Your task to perform on an android device: change text size in settings app Image 0: 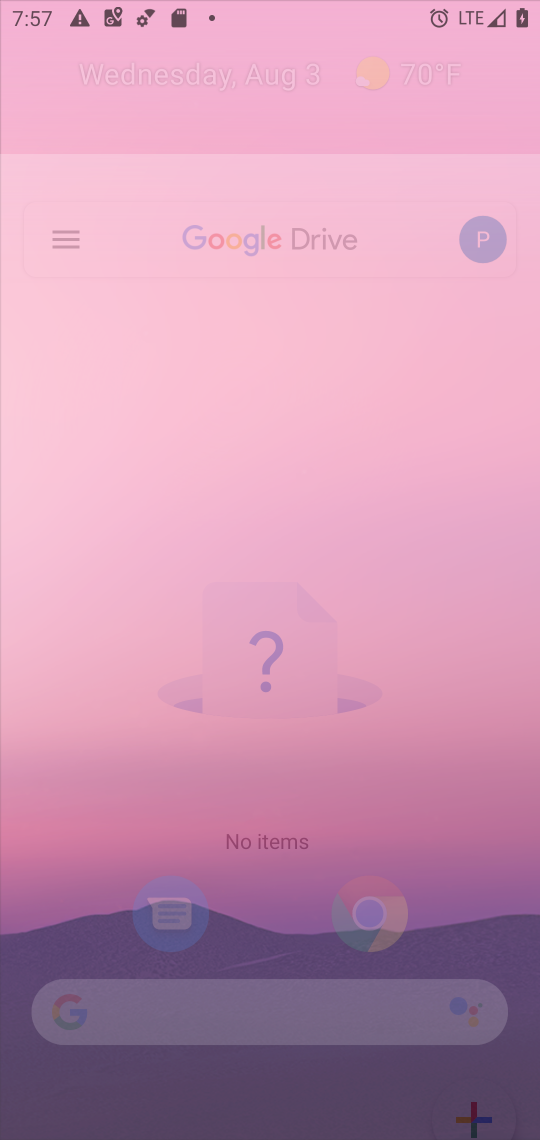
Step 0: press home button
Your task to perform on an android device: change text size in settings app Image 1: 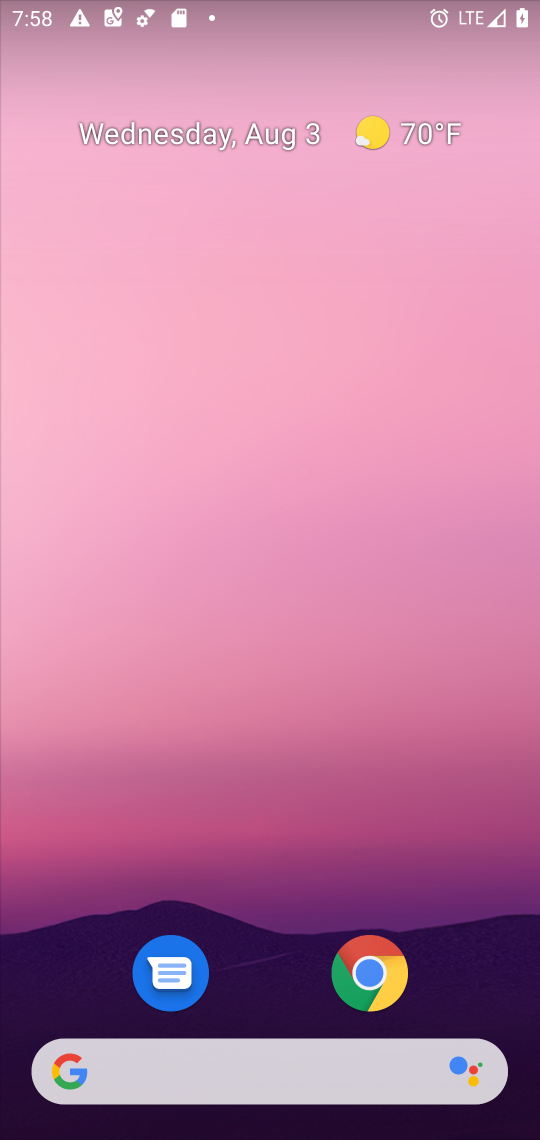
Step 1: drag from (278, 998) to (269, 107)
Your task to perform on an android device: change text size in settings app Image 2: 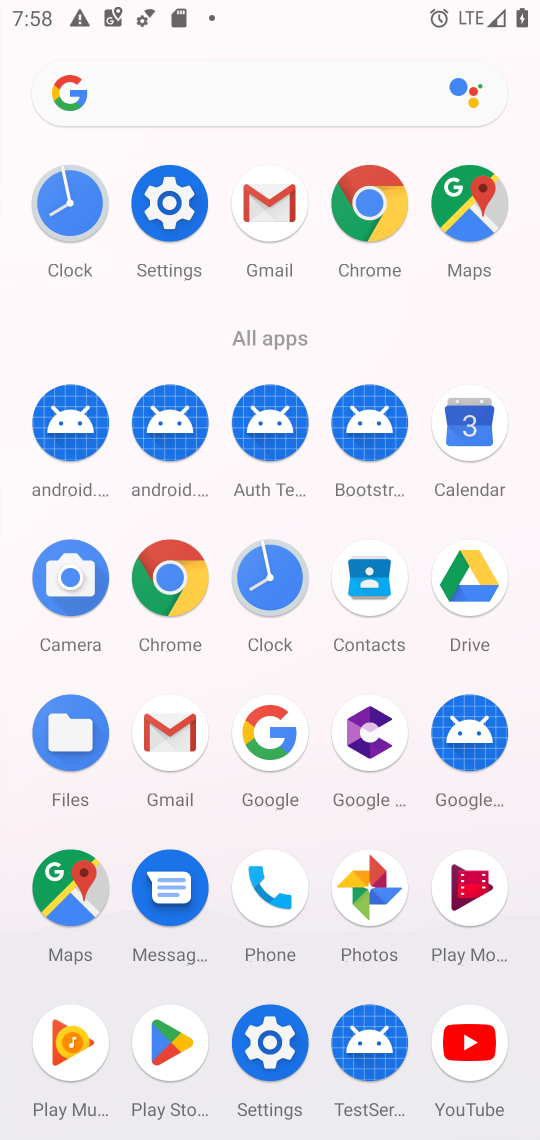
Step 2: click (269, 1035)
Your task to perform on an android device: change text size in settings app Image 3: 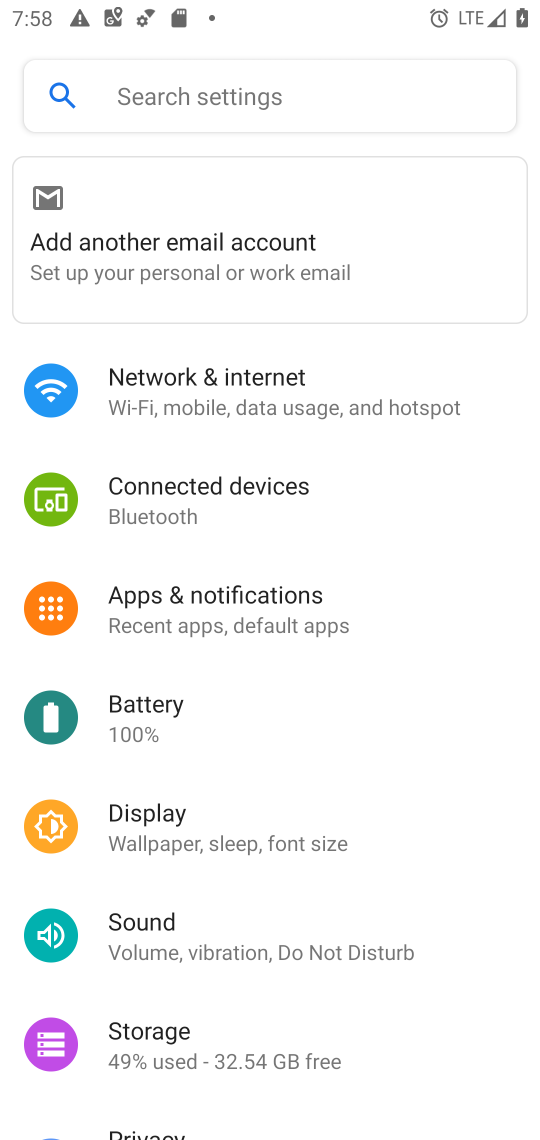
Step 3: click (197, 820)
Your task to perform on an android device: change text size in settings app Image 4: 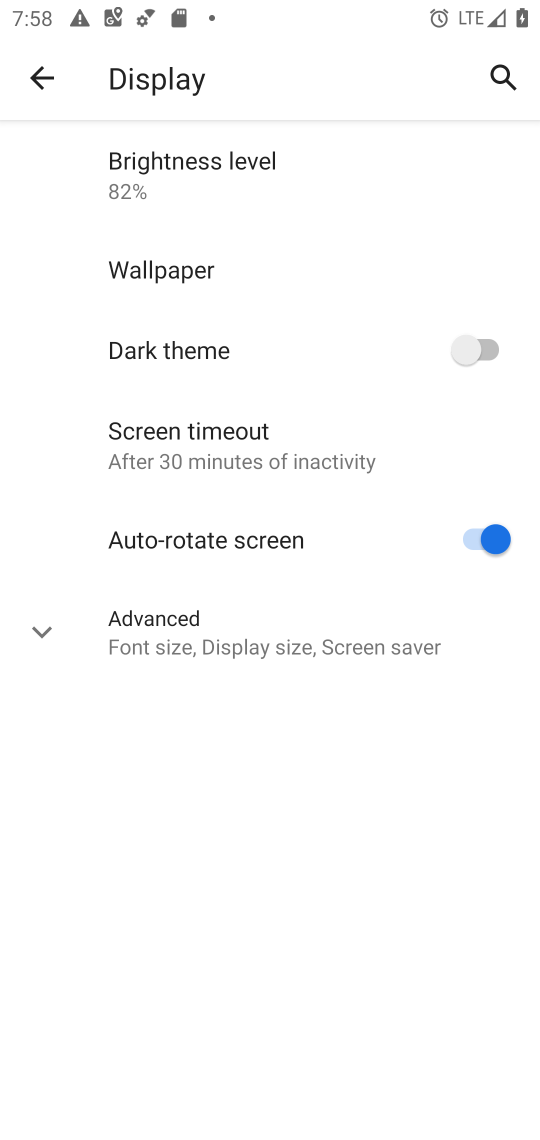
Step 4: click (51, 623)
Your task to perform on an android device: change text size in settings app Image 5: 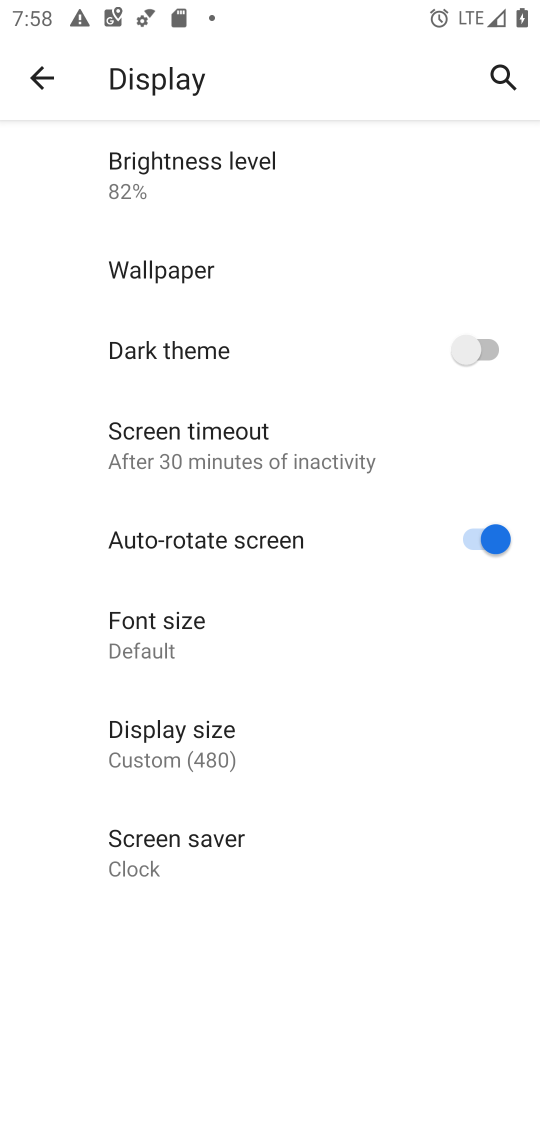
Step 5: click (188, 647)
Your task to perform on an android device: change text size in settings app Image 6: 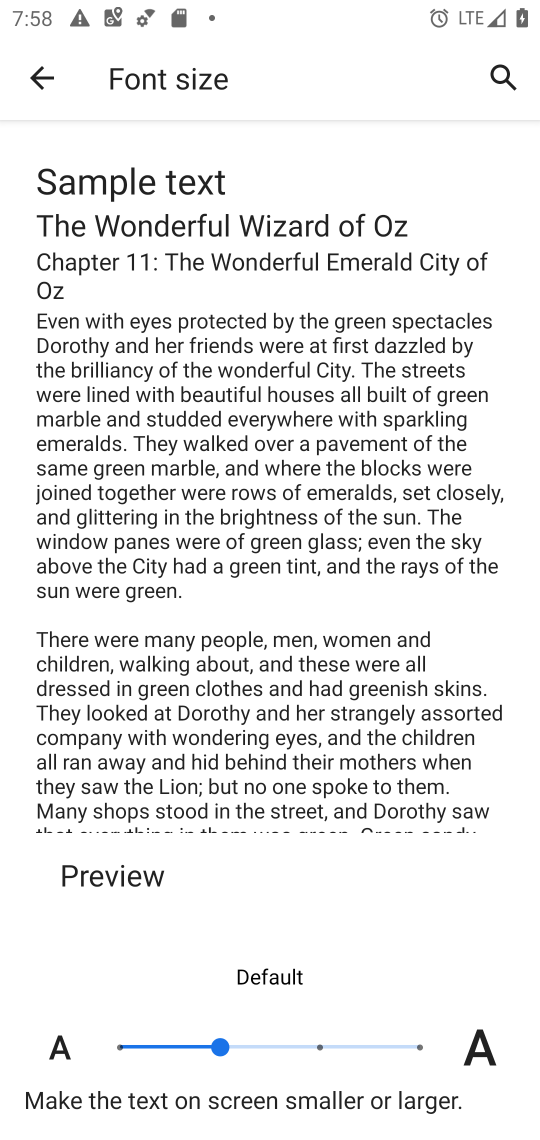
Step 6: click (134, 1020)
Your task to perform on an android device: change text size in settings app Image 7: 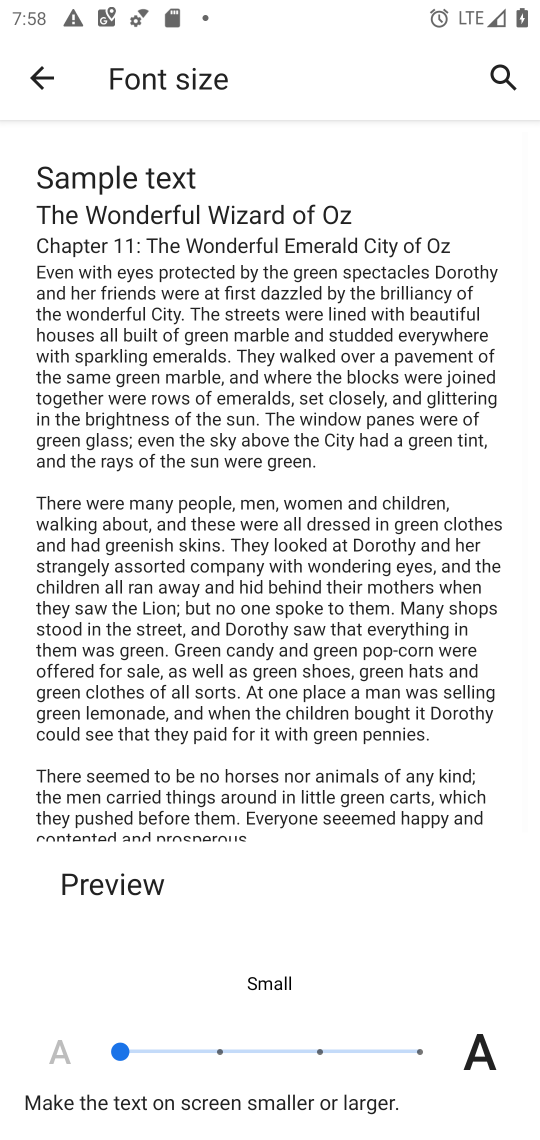
Step 7: task complete